Your task to perform on an android device: Go to accessibility settings Image 0: 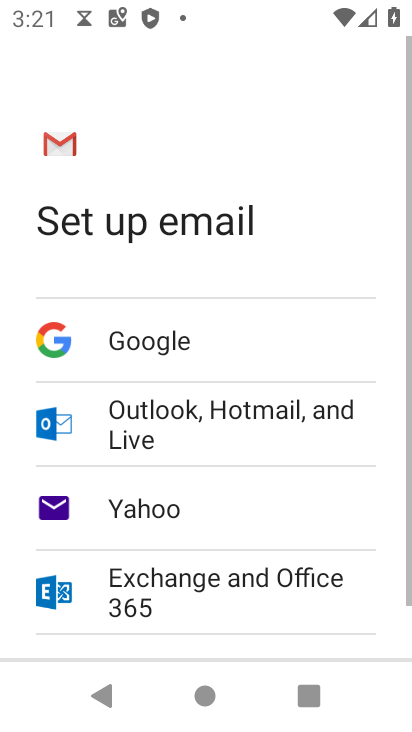
Step 0: press home button
Your task to perform on an android device: Go to accessibility settings Image 1: 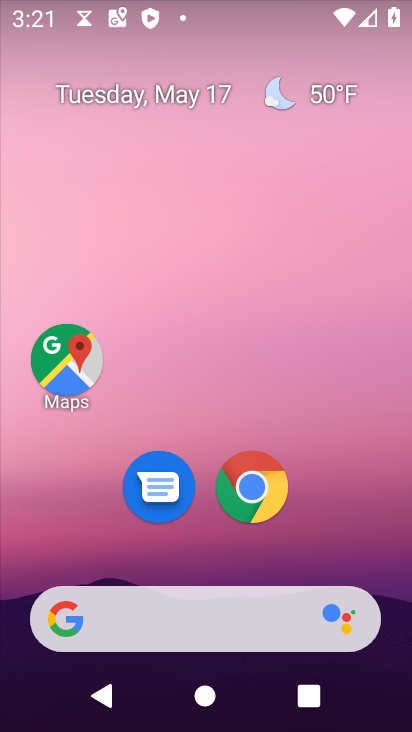
Step 1: drag from (401, 611) to (335, 135)
Your task to perform on an android device: Go to accessibility settings Image 2: 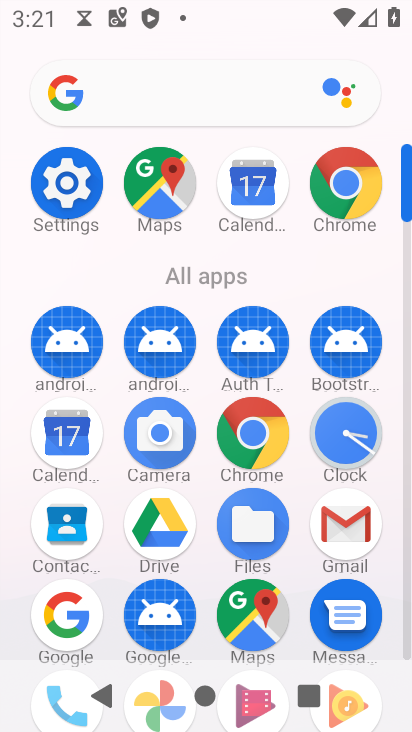
Step 2: click (408, 653)
Your task to perform on an android device: Go to accessibility settings Image 3: 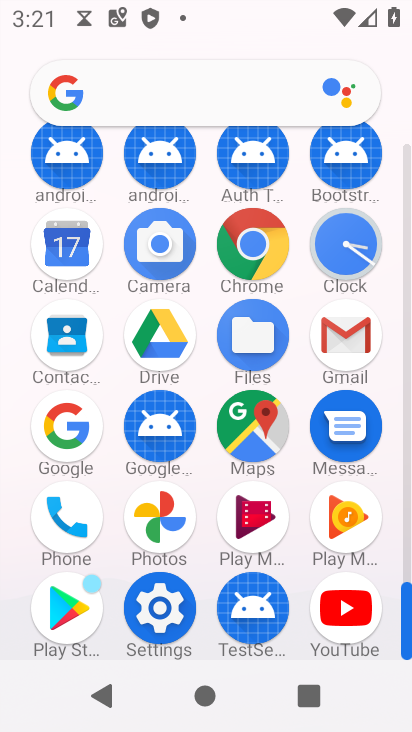
Step 3: click (157, 612)
Your task to perform on an android device: Go to accessibility settings Image 4: 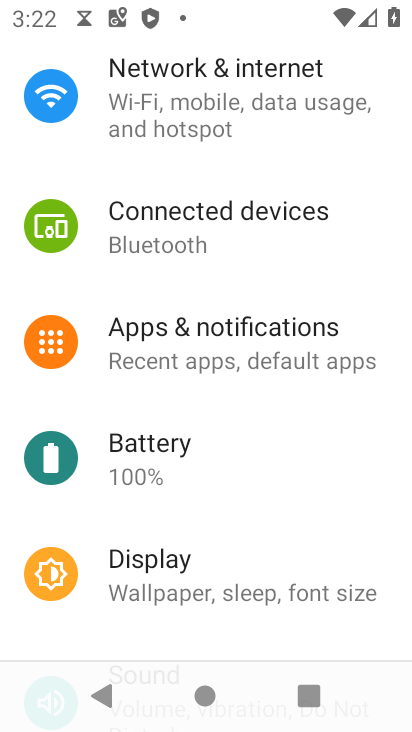
Step 4: drag from (311, 594) to (375, 117)
Your task to perform on an android device: Go to accessibility settings Image 5: 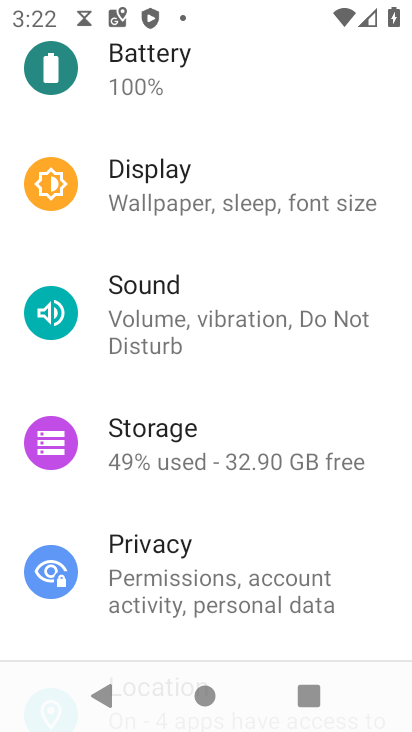
Step 5: drag from (311, 603) to (357, 166)
Your task to perform on an android device: Go to accessibility settings Image 6: 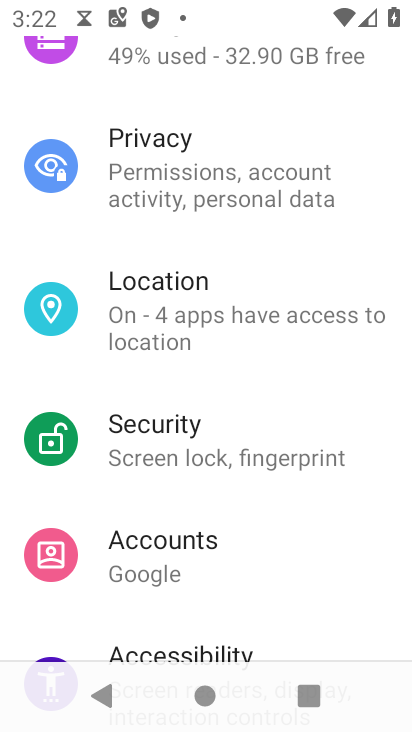
Step 6: drag from (303, 604) to (370, 177)
Your task to perform on an android device: Go to accessibility settings Image 7: 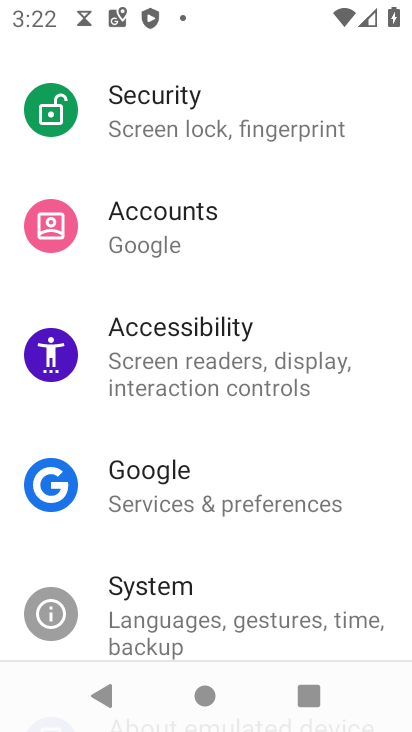
Step 7: click (157, 376)
Your task to perform on an android device: Go to accessibility settings Image 8: 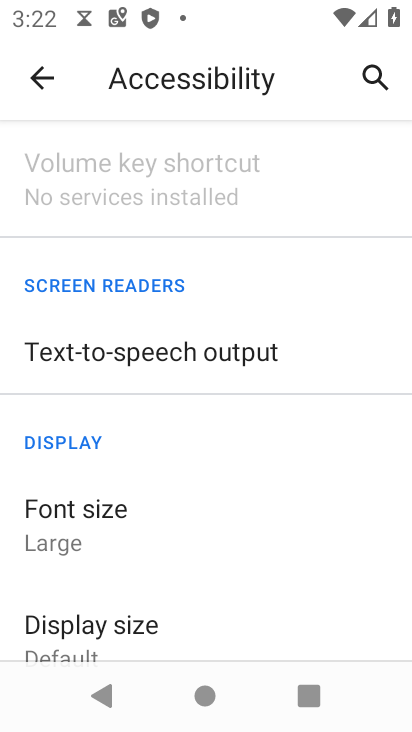
Step 8: task complete